Your task to perform on an android device: Open Reddit.com Image 0: 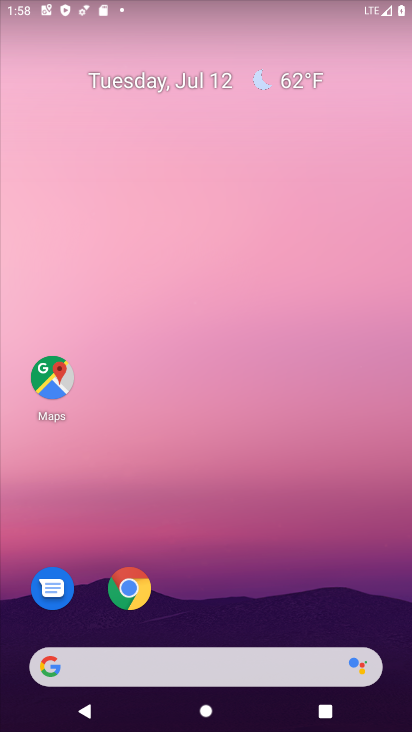
Step 0: click (129, 657)
Your task to perform on an android device: Open Reddit.com Image 1: 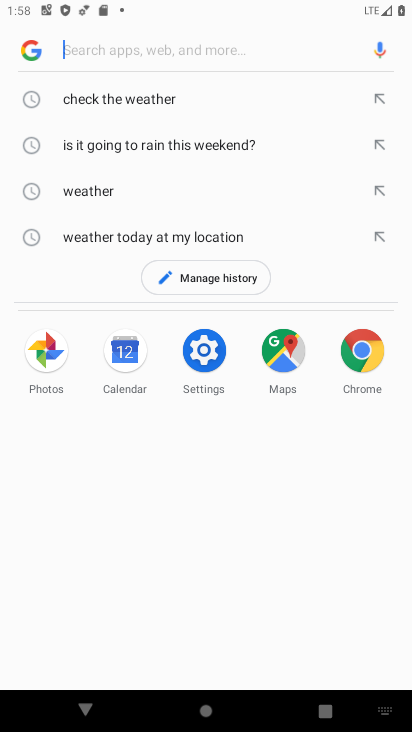
Step 1: type "reddit.com"
Your task to perform on an android device: Open Reddit.com Image 2: 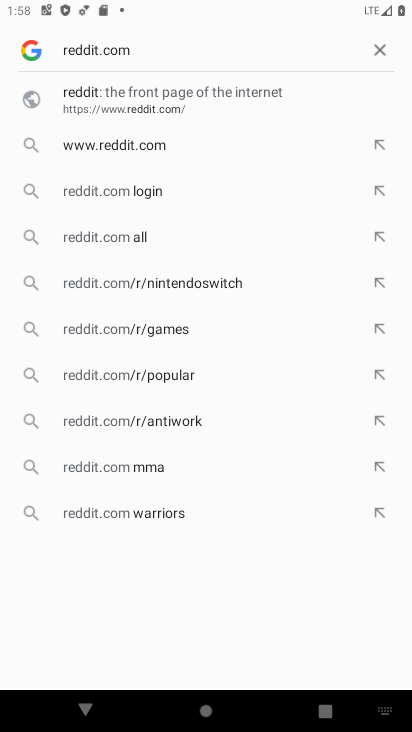
Step 2: click (202, 90)
Your task to perform on an android device: Open Reddit.com Image 3: 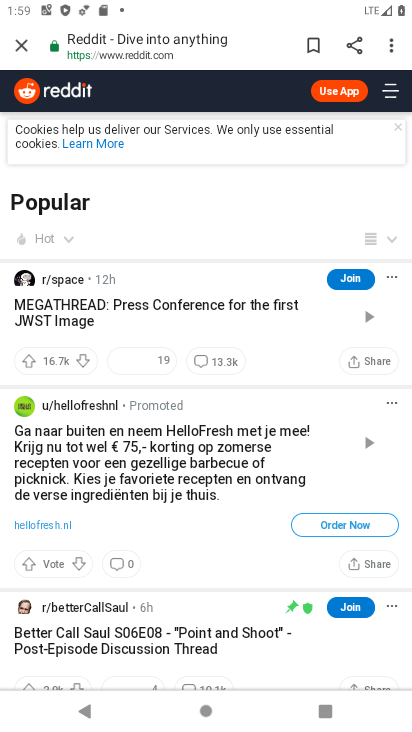
Step 3: task complete